Your task to perform on an android device: turn off improve location accuracy Image 0: 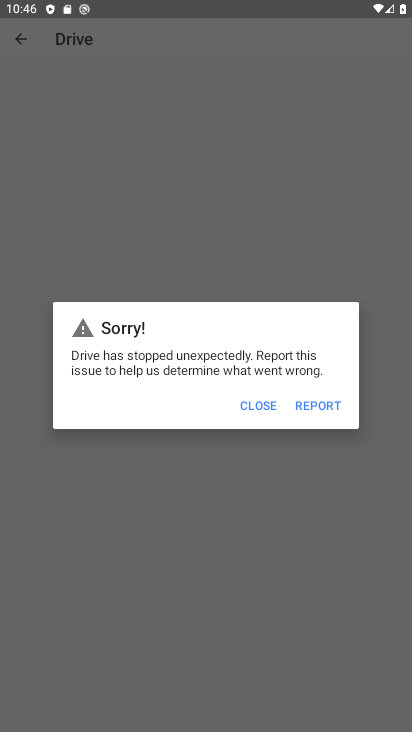
Step 0: press home button
Your task to perform on an android device: turn off improve location accuracy Image 1: 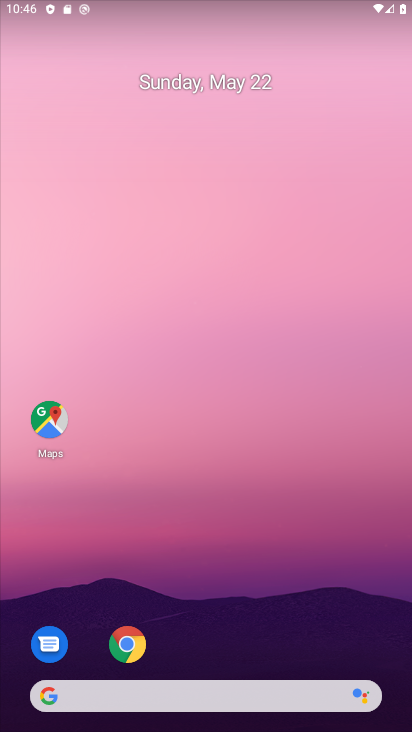
Step 1: drag from (381, 649) to (300, 164)
Your task to perform on an android device: turn off improve location accuracy Image 2: 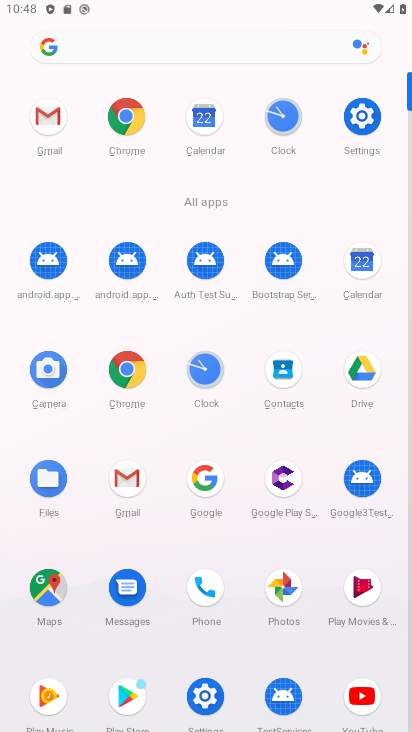
Step 2: click (372, 108)
Your task to perform on an android device: turn off improve location accuracy Image 3: 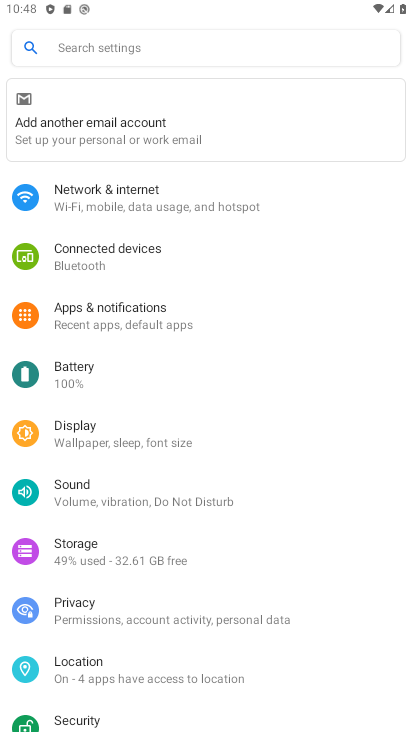
Step 3: click (118, 671)
Your task to perform on an android device: turn off improve location accuracy Image 4: 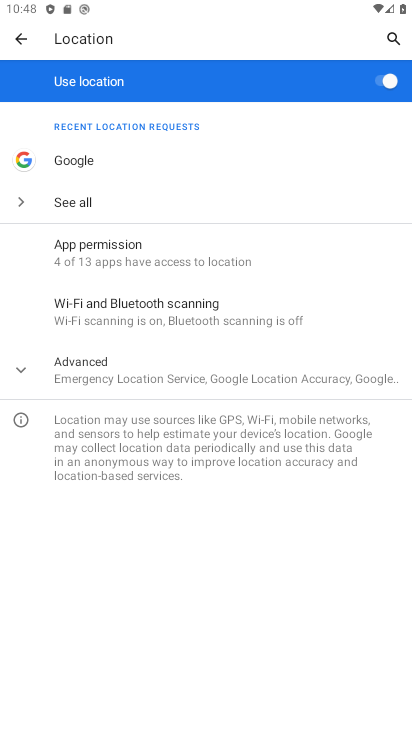
Step 4: click (174, 372)
Your task to perform on an android device: turn off improve location accuracy Image 5: 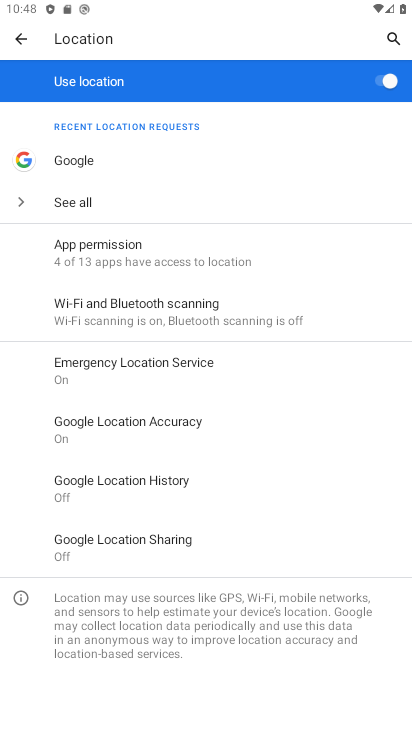
Step 5: click (182, 422)
Your task to perform on an android device: turn off improve location accuracy Image 6: 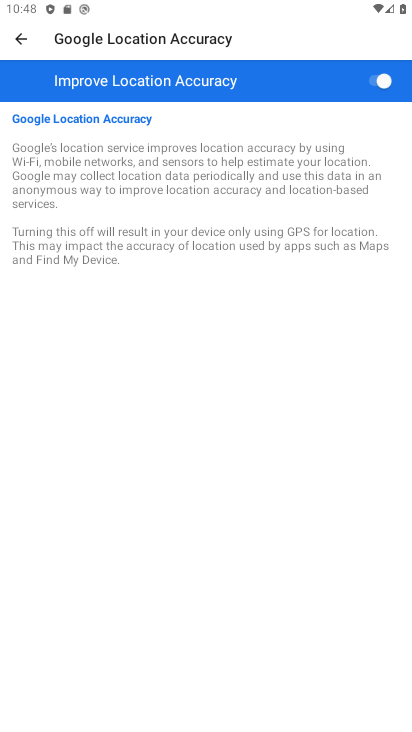
Step 6: click (375, 78)
Your task to perform on an android device: turn off improve location accuracy Image 7: 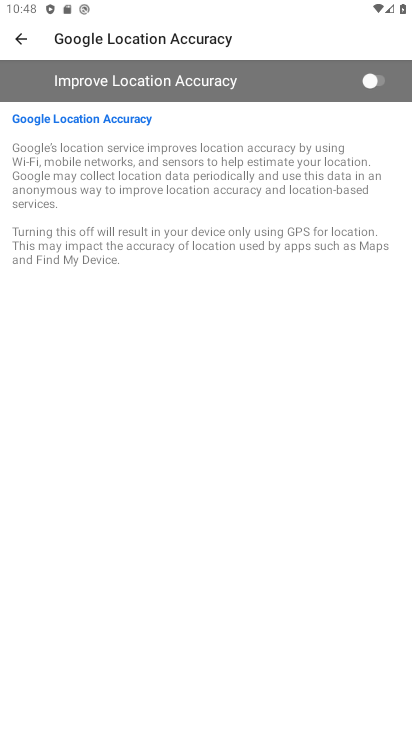
Step 7: task complete